Your task to perform on an android device: turn off priority inbox in the gmail app Image 0: 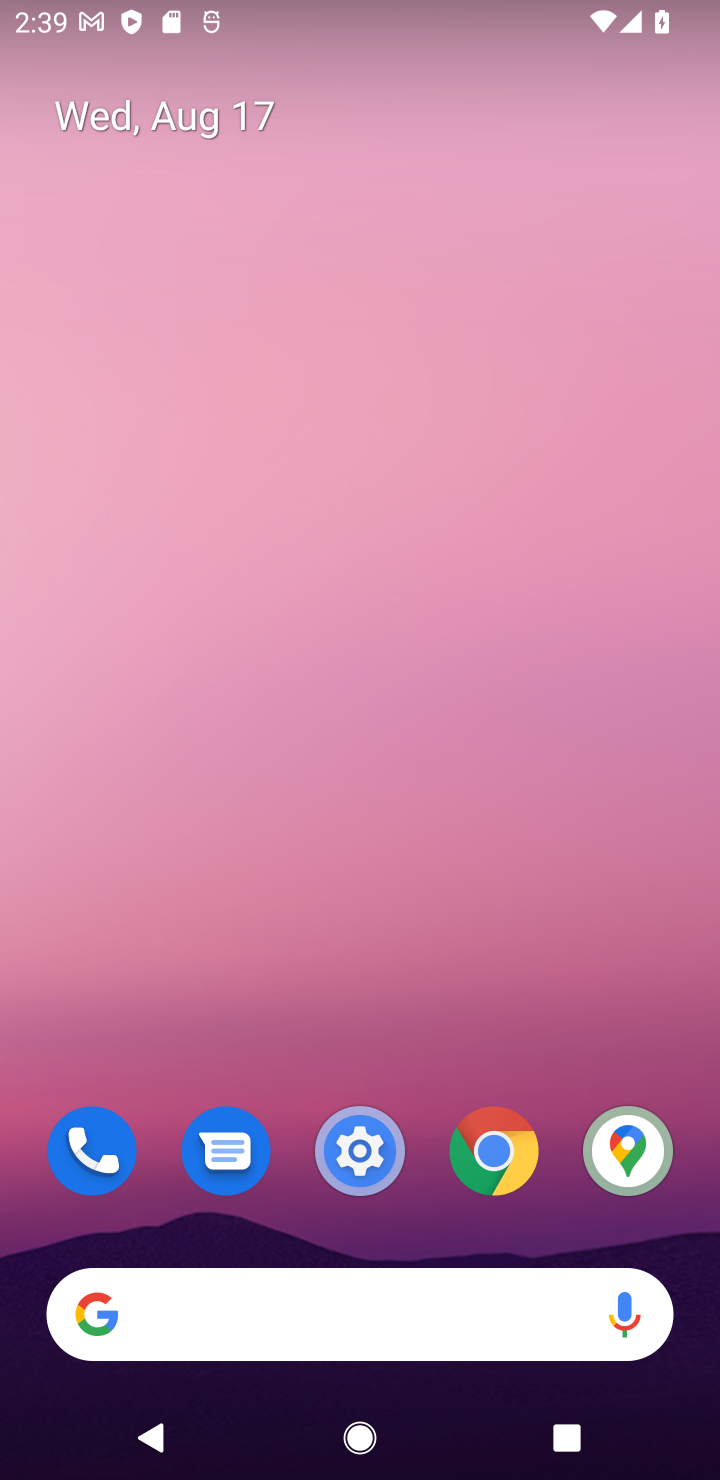
Step 0: drag from (270, 1188) to (308, 569)
Your task to perform on an android device: turn off priority inbox in the gmail app Image 1: 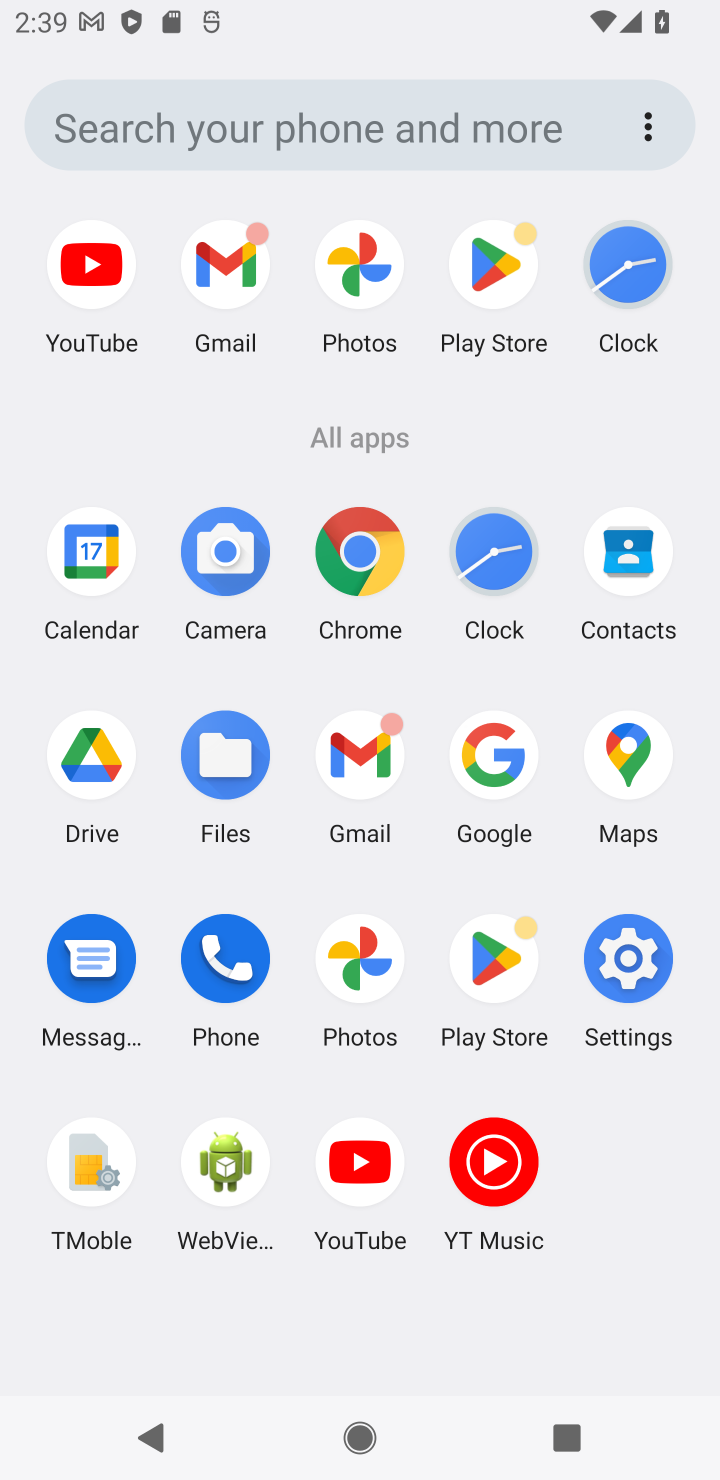
Step 1: click (198, 258)
Your task to perform on an android device: turn off priority inbox in the gmail app Image 2: 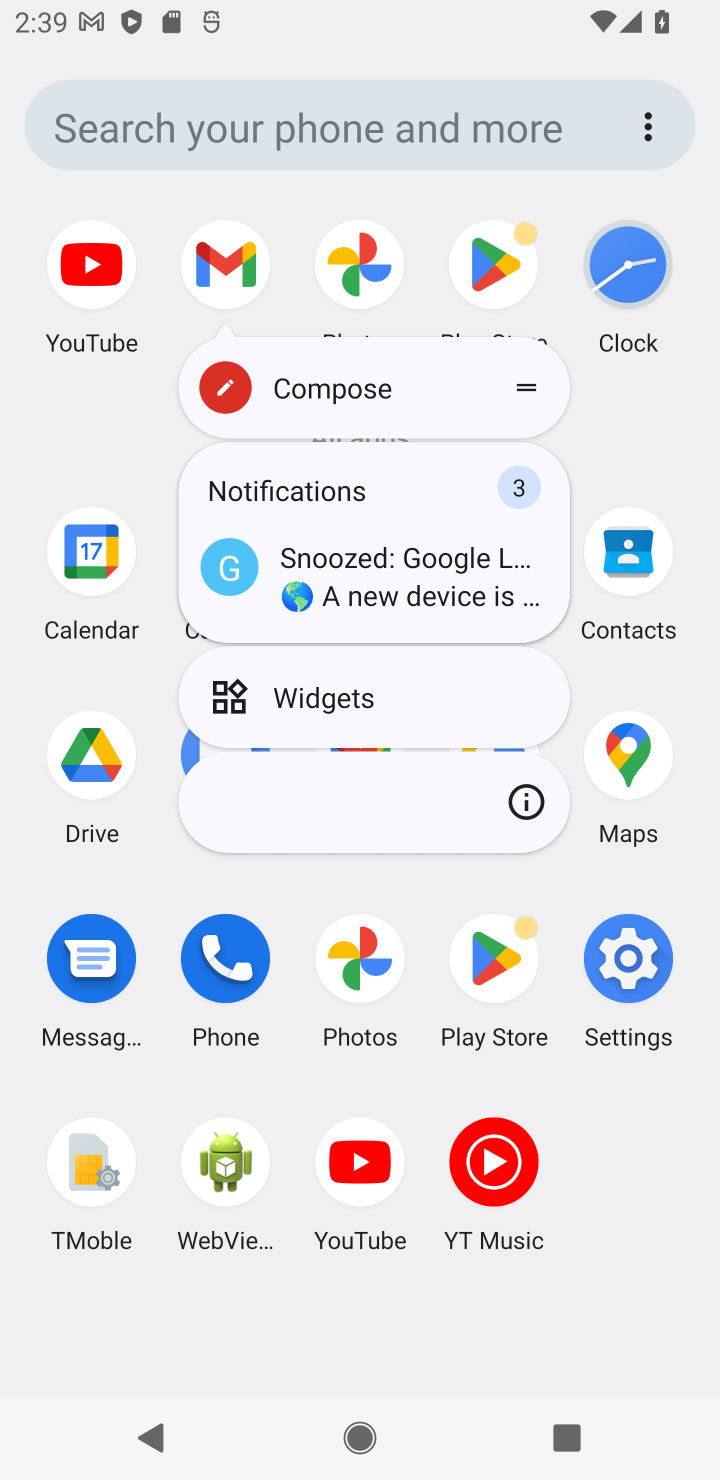
Step 2: click (223, 227)
Your task to perform on an android device: turn off priority inbox in the gmail app Image 3: 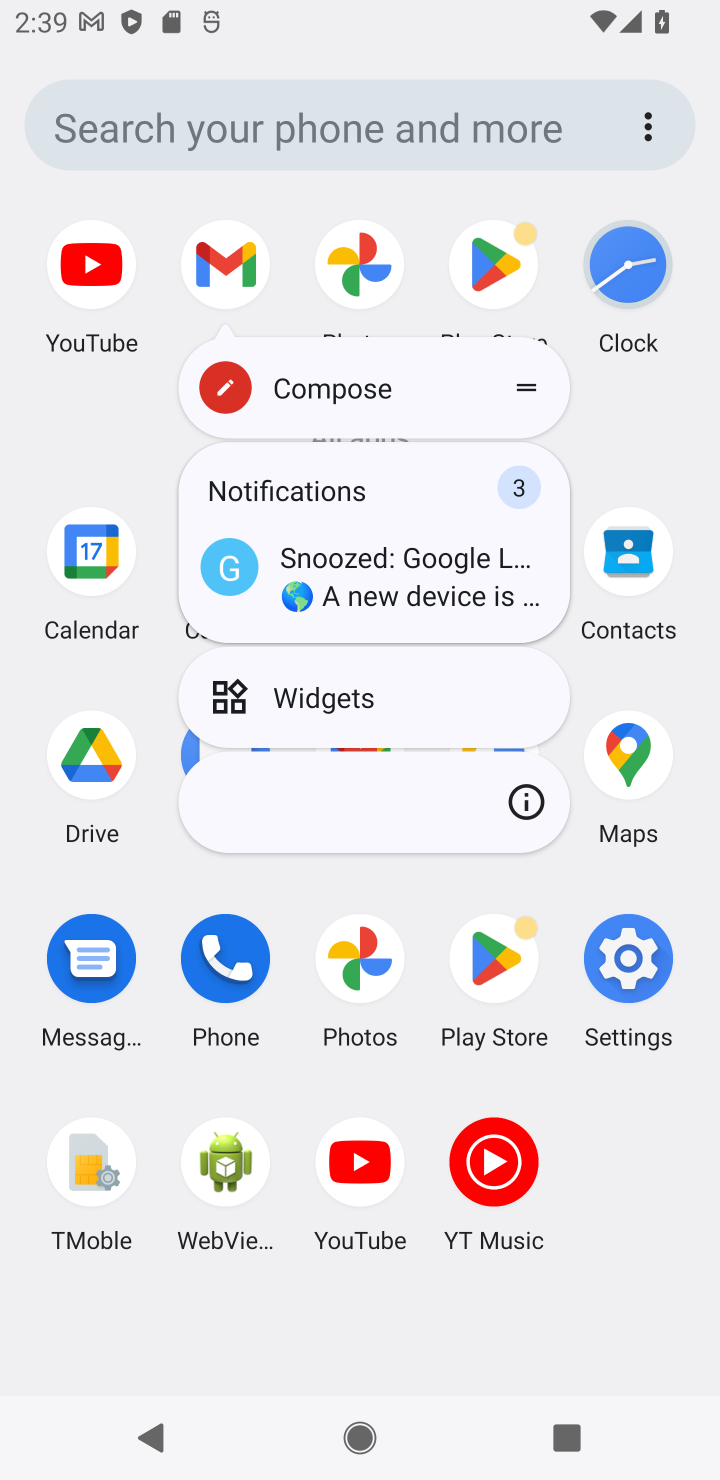
Step 3: click (210, 246)
Your task to perform on an android device: turn off priority inbox in the gmail app Image 4: 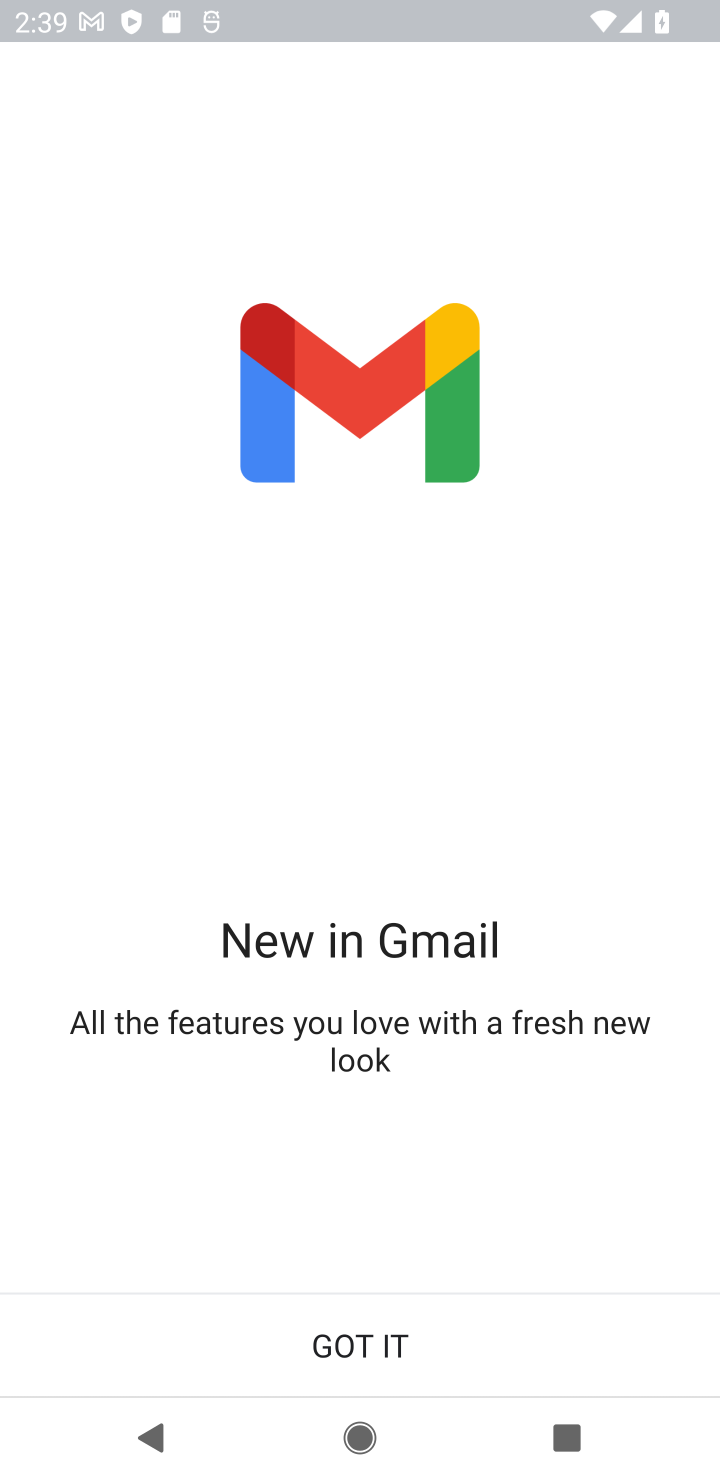
Step 4: click (370, 1325)
Your task to perform on an android device: turn off priority inbox in the gmail app Image 5: 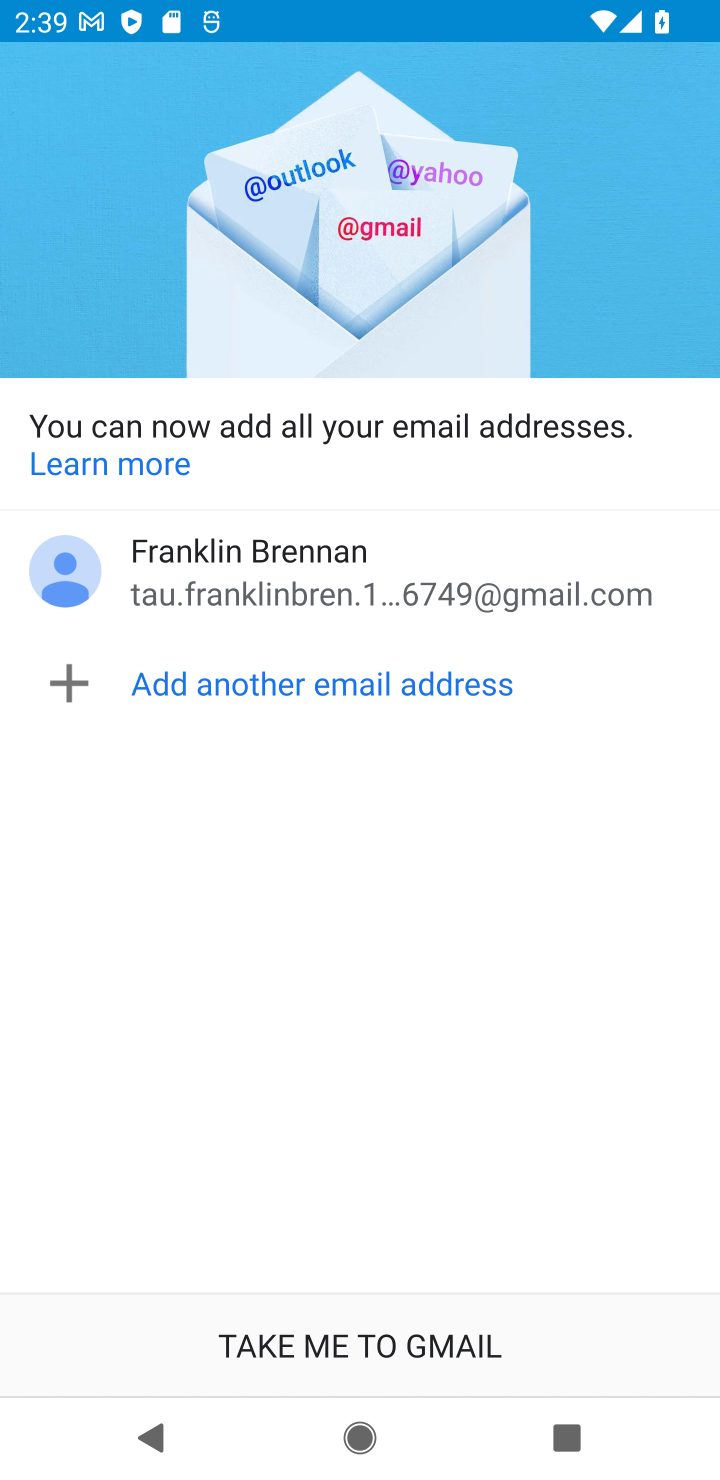
Step 5: click (370, 1325)
Your task to perform on an android device: turn off priority inbox in the gmail app Image 6: 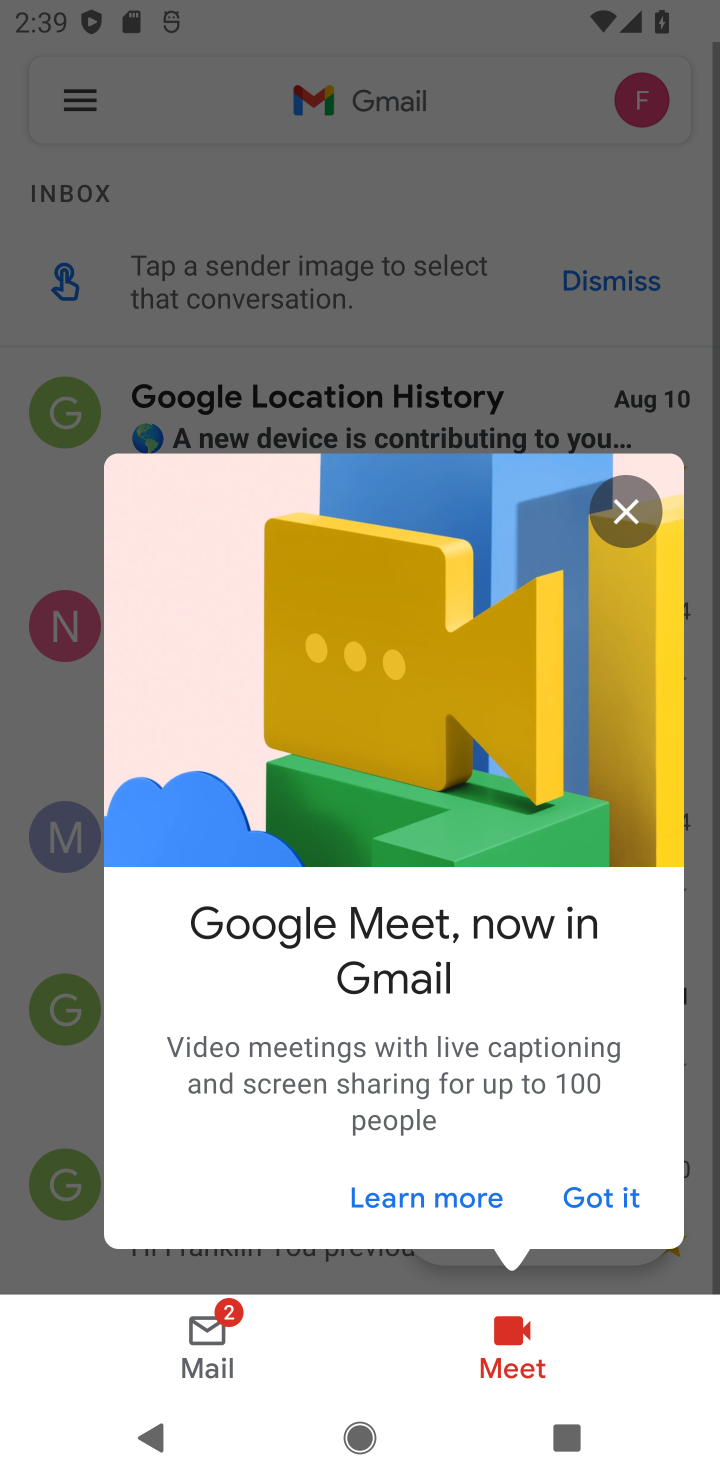
Step 6: click (576, 1203)
Your task to perform on an android device: turn off priority inbox in the gmail app Image 7: 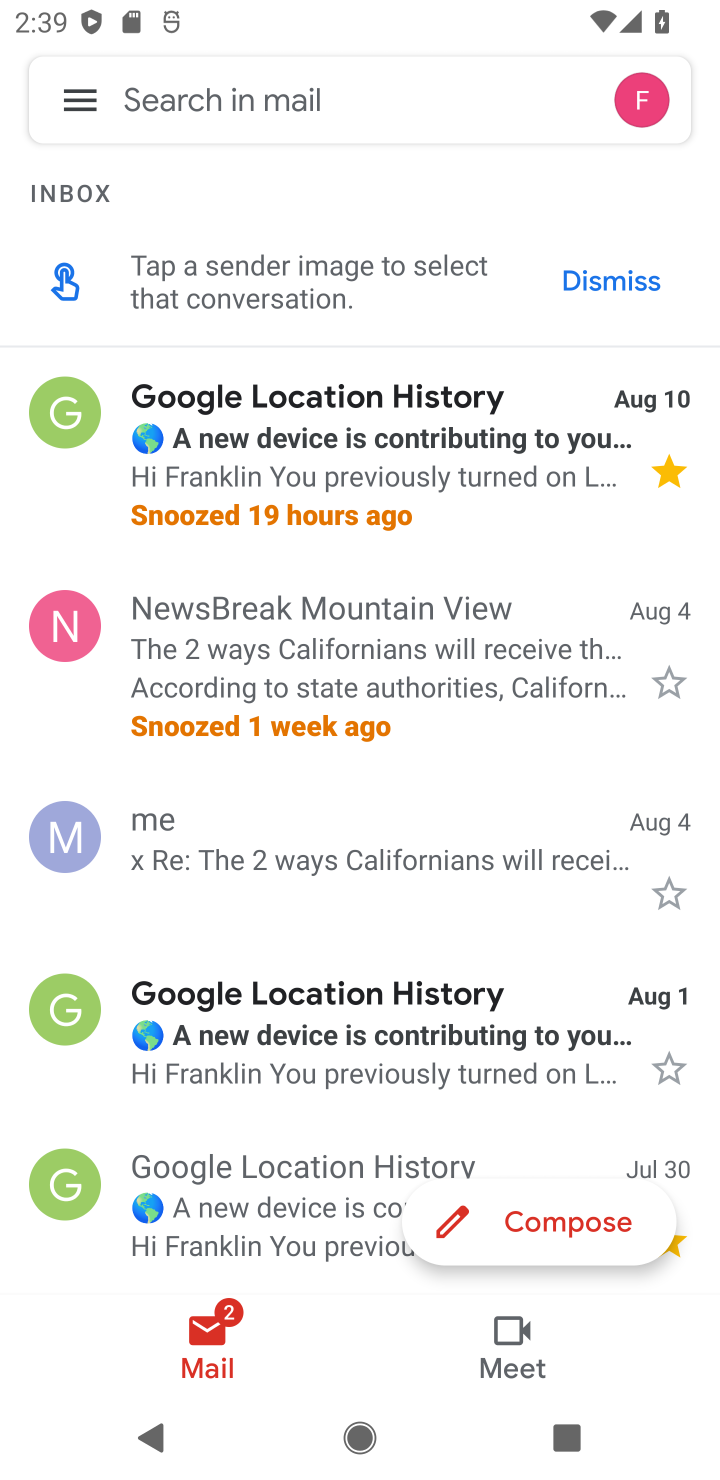
Step 7: click (77, 86)
Your task to perform on an android device: turn off priority inbox in the gmail app Image 8: 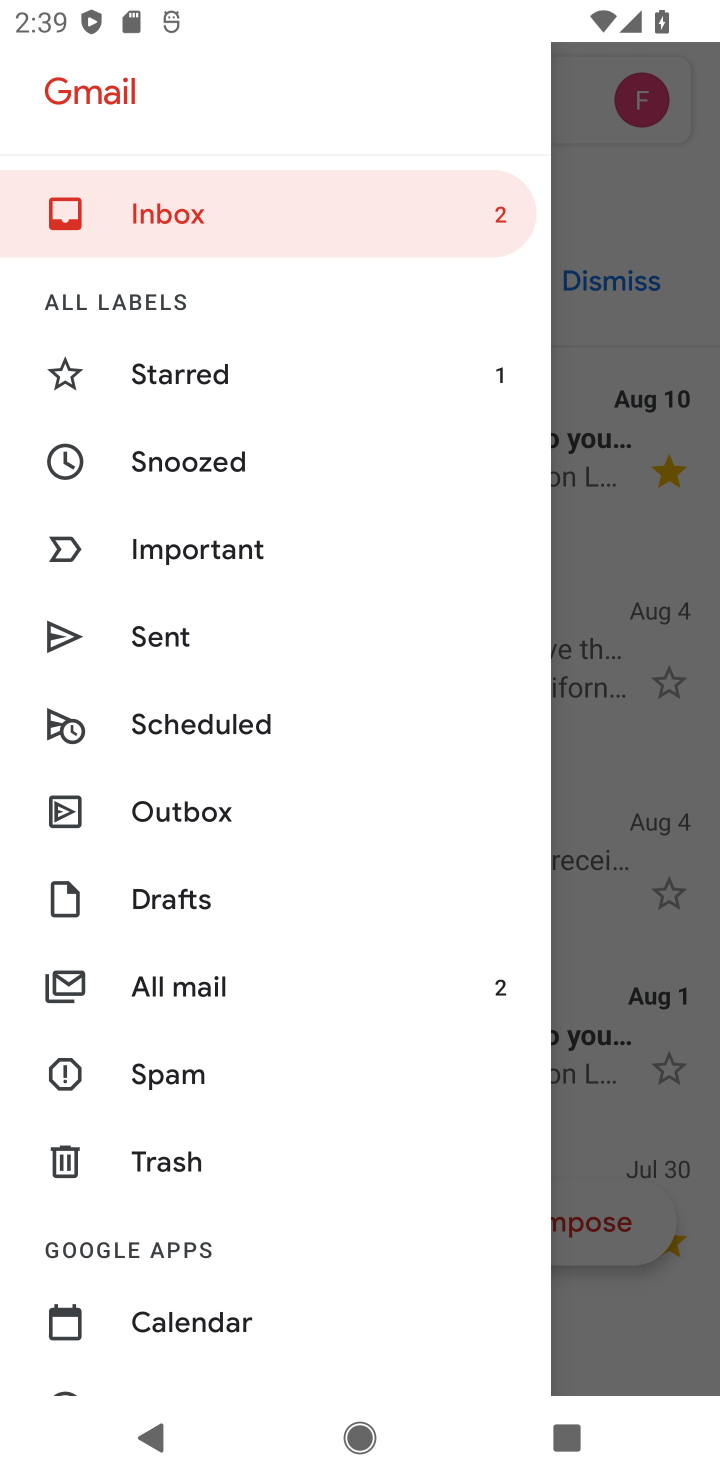
Step 8: drag from (229, 1190) to (301, 241)
Your task to perform on an android device: turn off priority inbox in the gmail app Image 9: 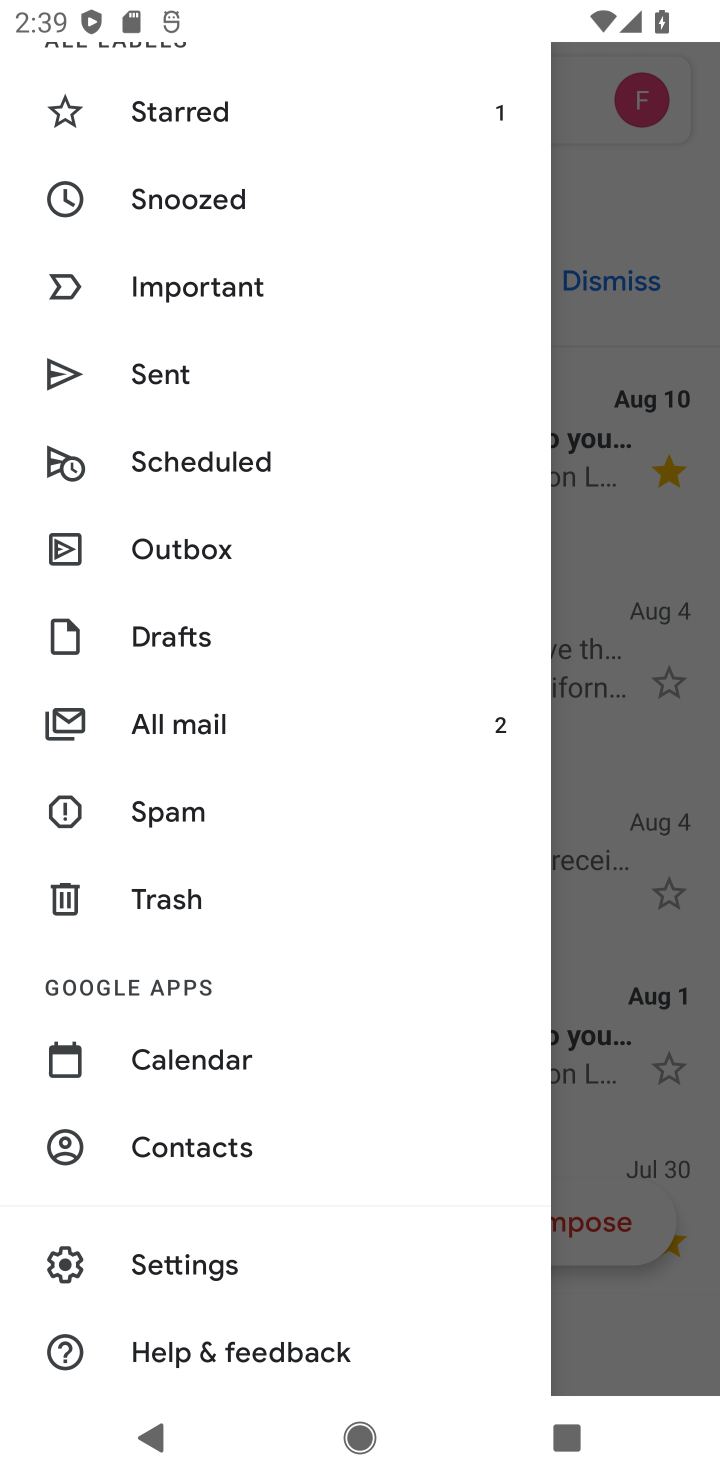
Step 9: click (219, 1254)
Your task to perform on an android device: turn off priority inbox in the gmail app Image 10: 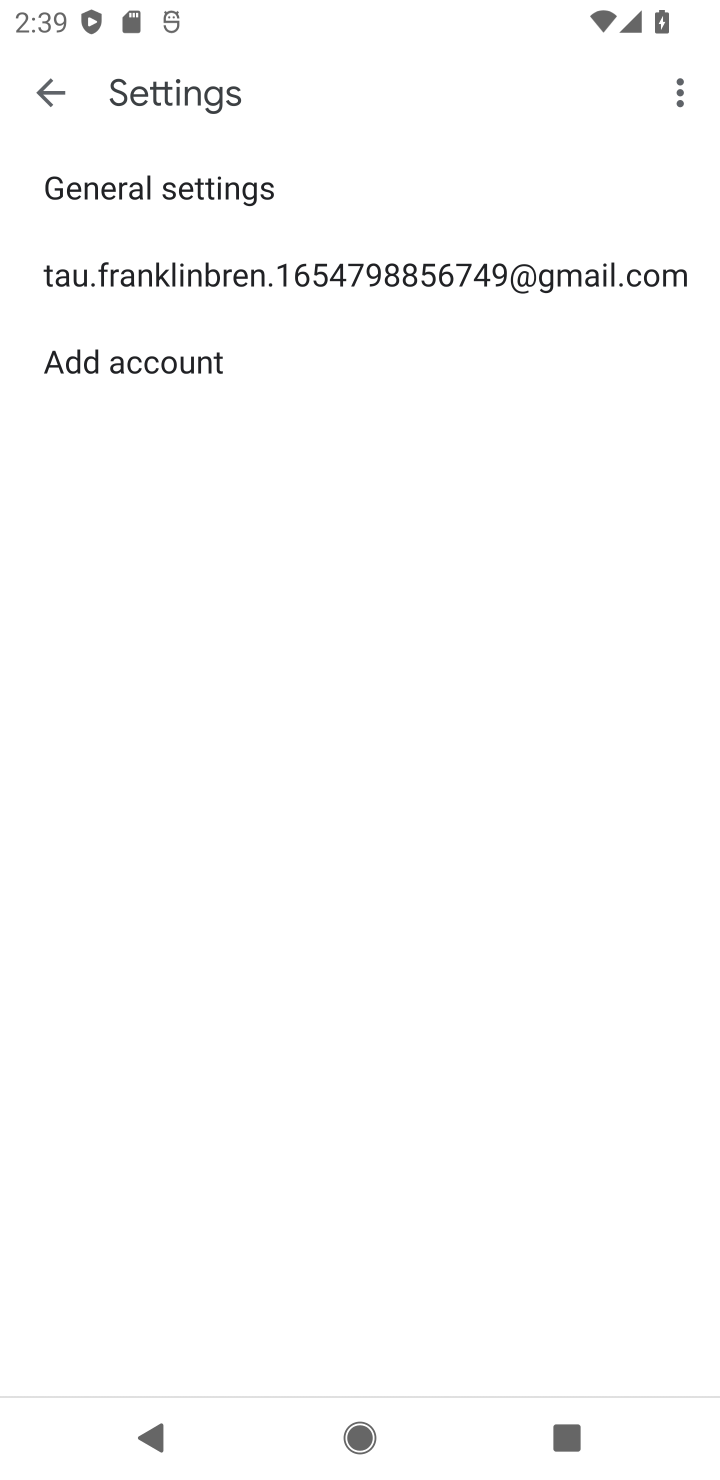
Step 10: click (304, 272)
Your task to perform on an android device: turn off priority inbox in the gmail app Image 11: 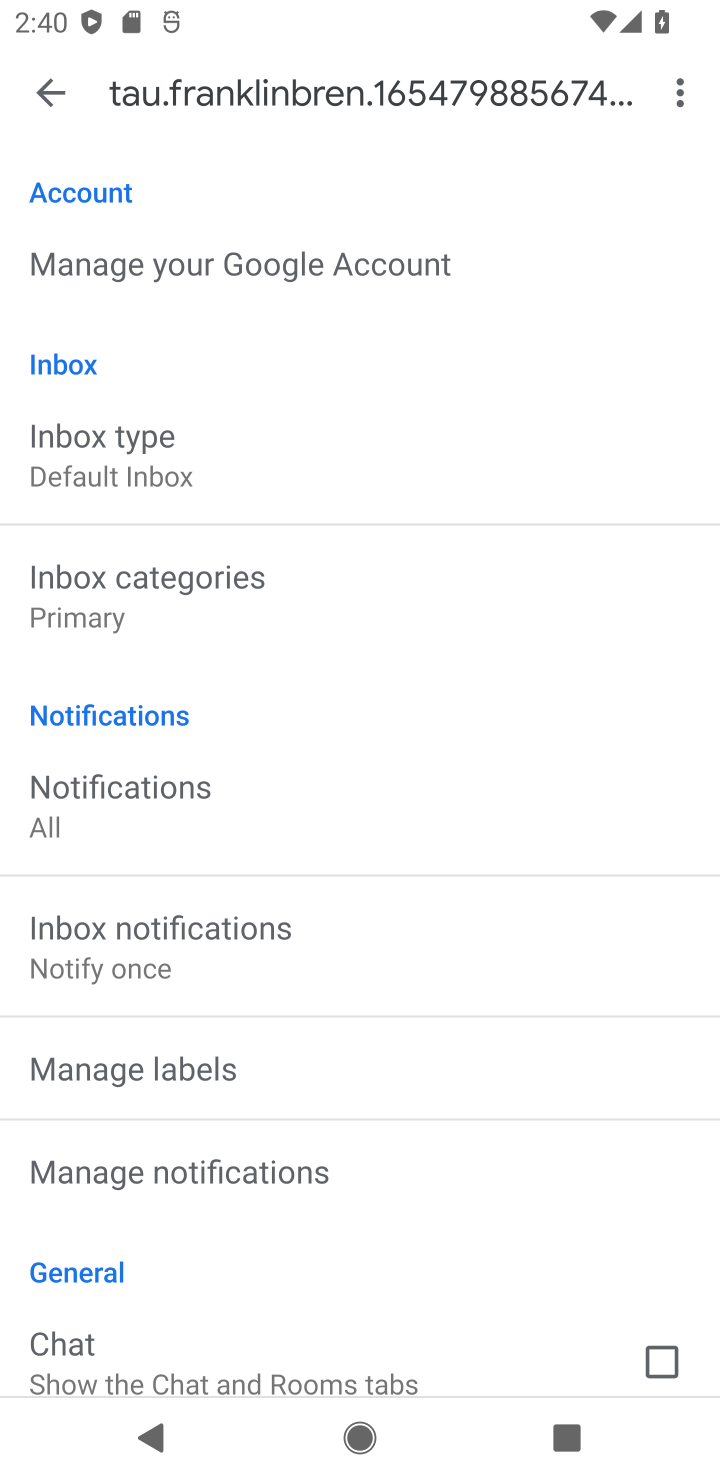
Step 11: click (194, 460)
Your task to perform on an android device: turn off priority inbox in the gmail app Image 12: 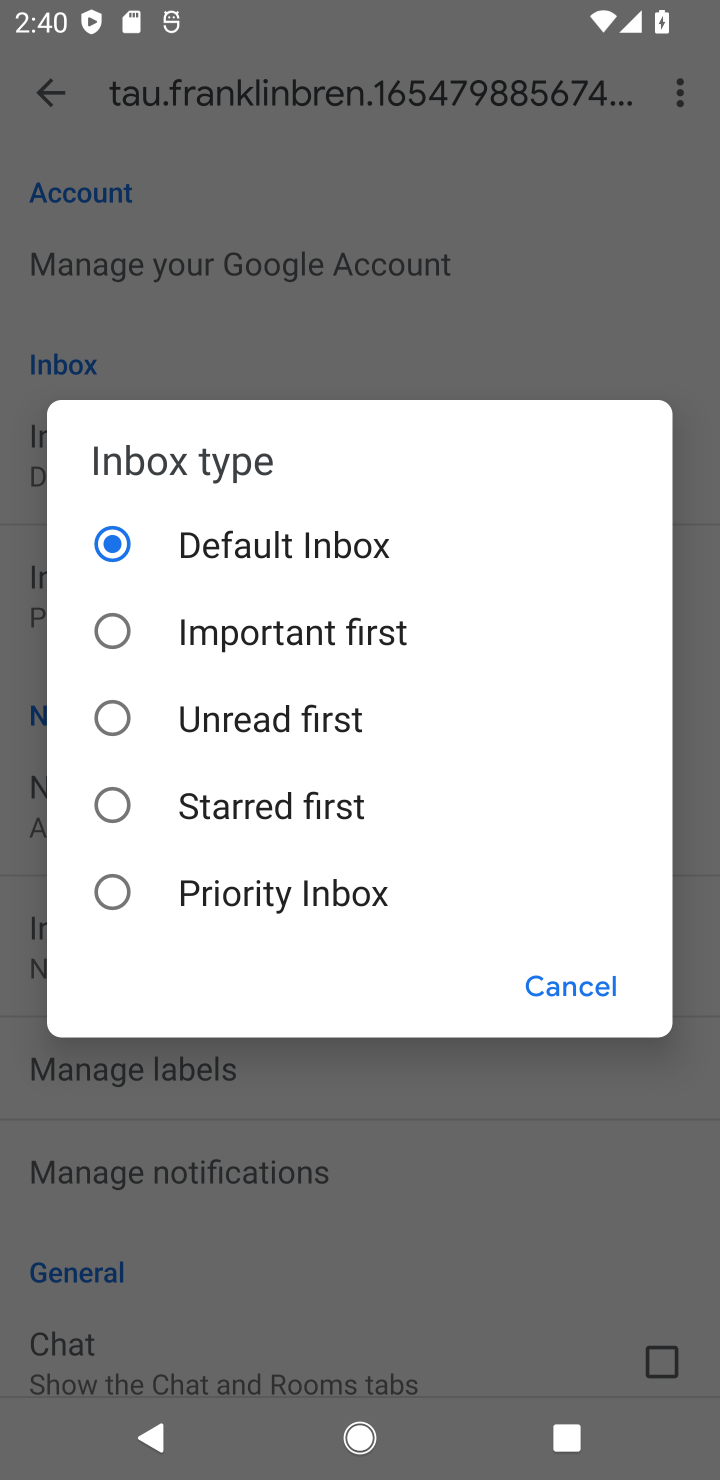
Step 12: task complete